Your task to perform on an android device: allow cookies in the chrome app Image 0: 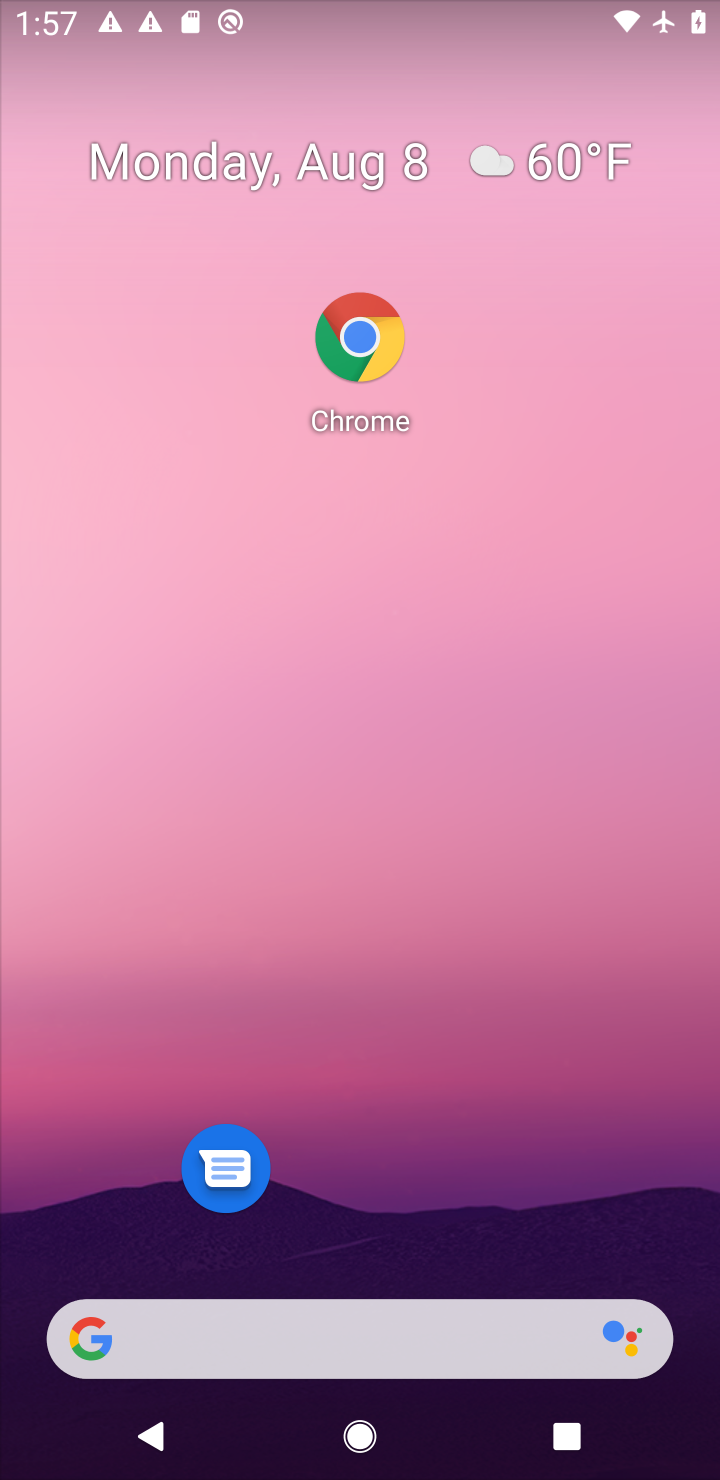
Step 0: click (366, 412)
Your task to perform on an android device: allow cookies in the chrome app Image 1: 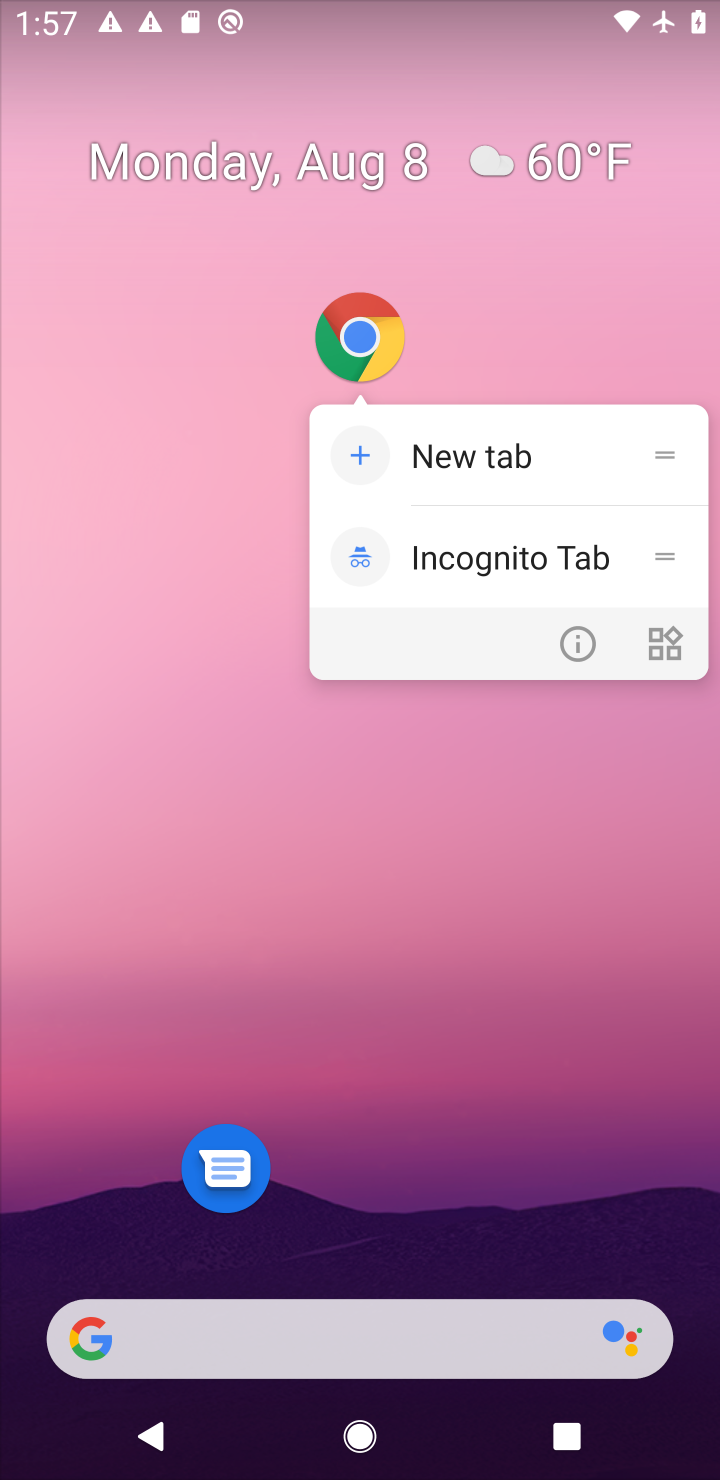
Step 1: click (362, 364)
Your task to perform on an android device: allow cookies in the chrome app Image 2: 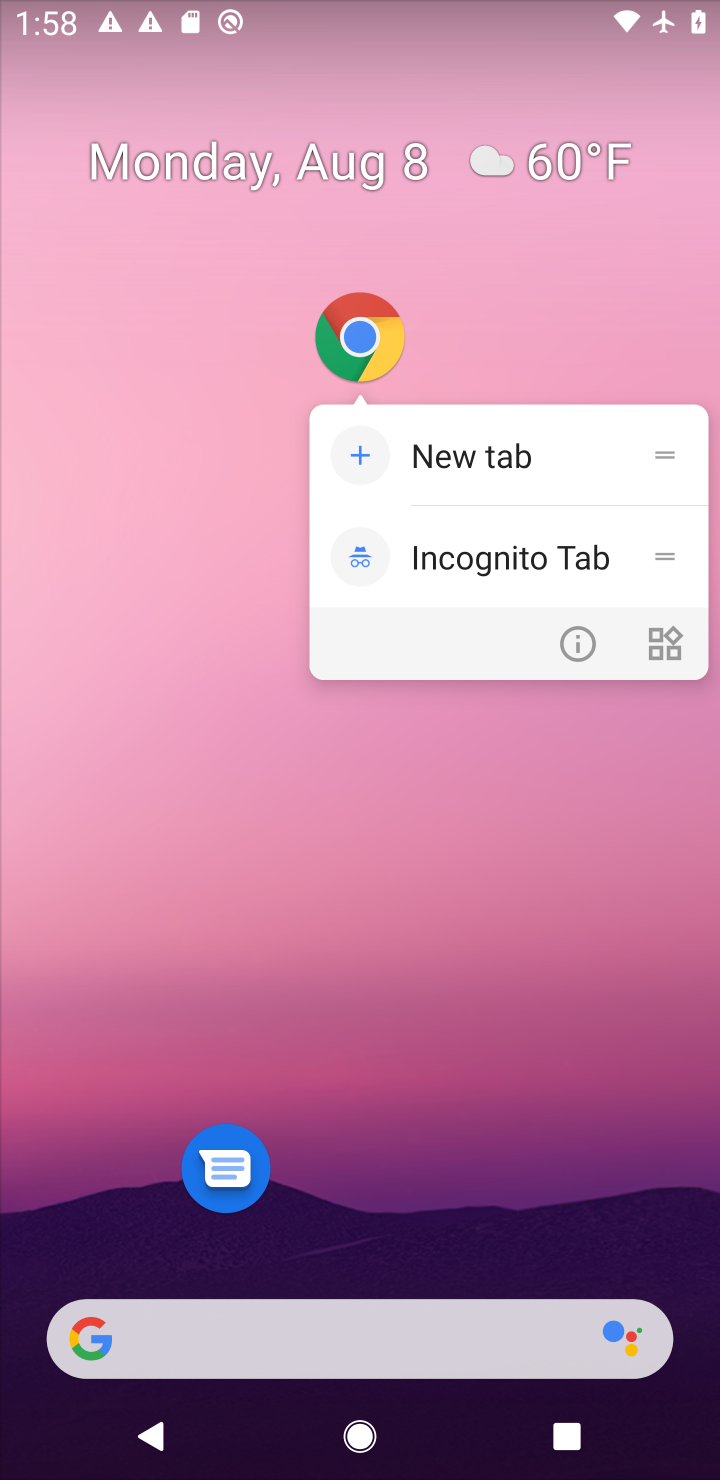
Step 2: click (362, 364)
Your task to perform on an android device: allow cookies in the chrome app Image 3: 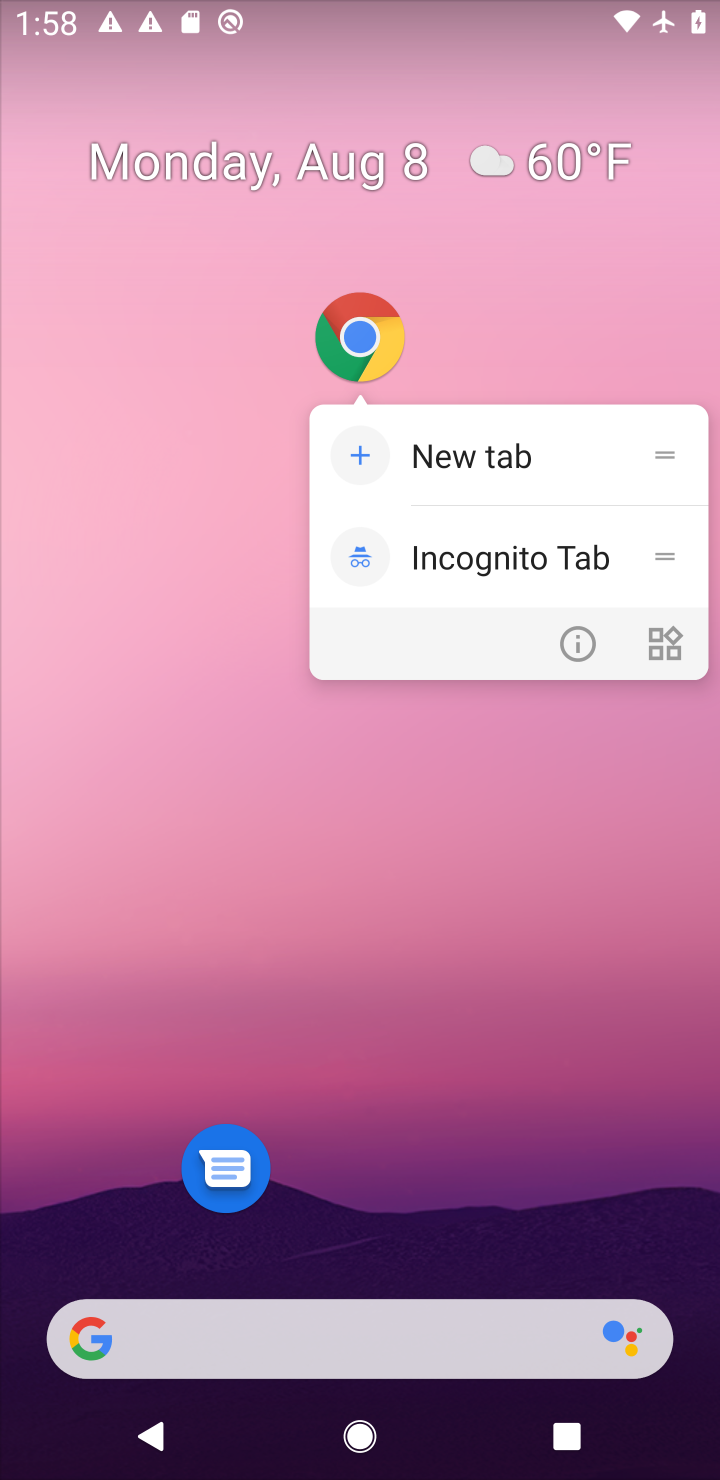
Step 3: click (371, 337)
Your task to perform on an android device: allow cookies in the chrome app Image 4: 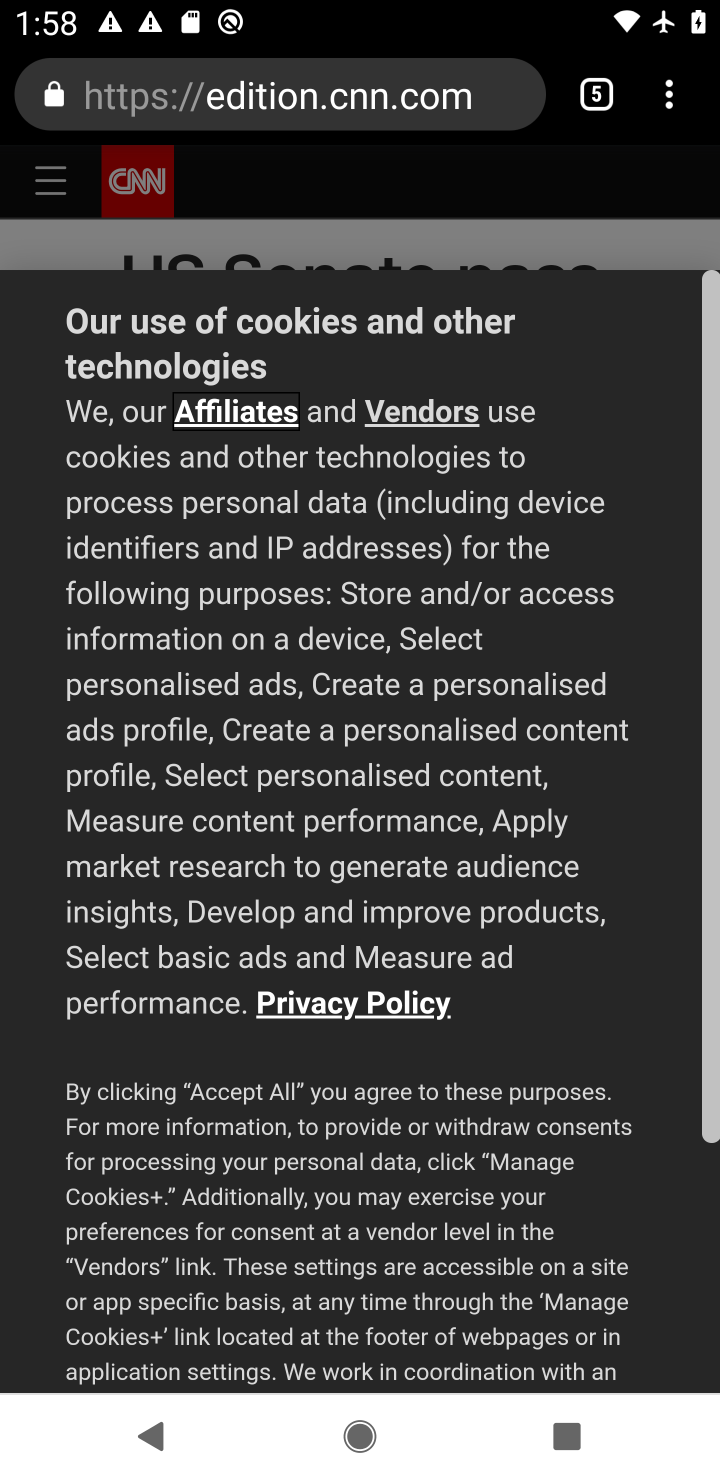
Step 4: click (674, 104)
Your task to perform on an android device: allow cookies in the chrome app Image 5: 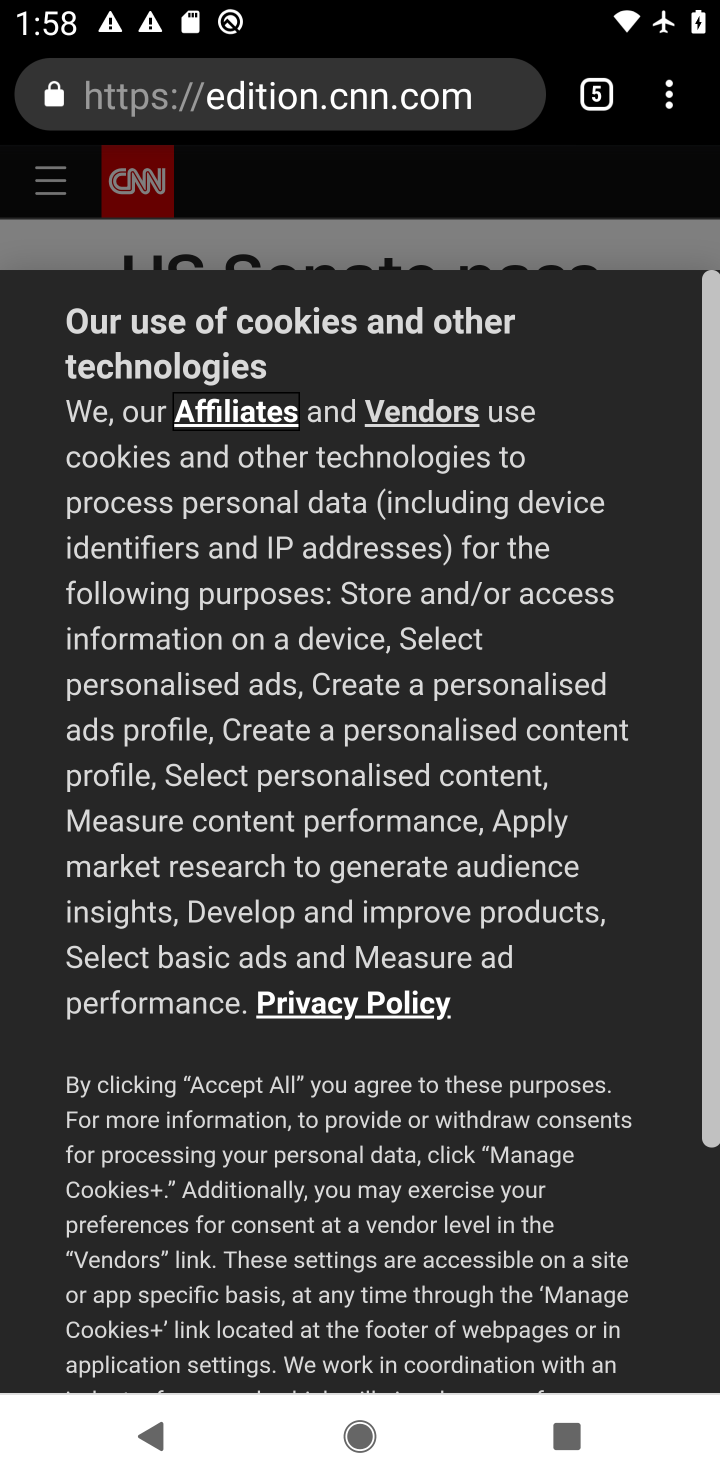
Step 5: click (687, 82)
Your task to perform on an android device: allow cookies in the chrome app Image 6: 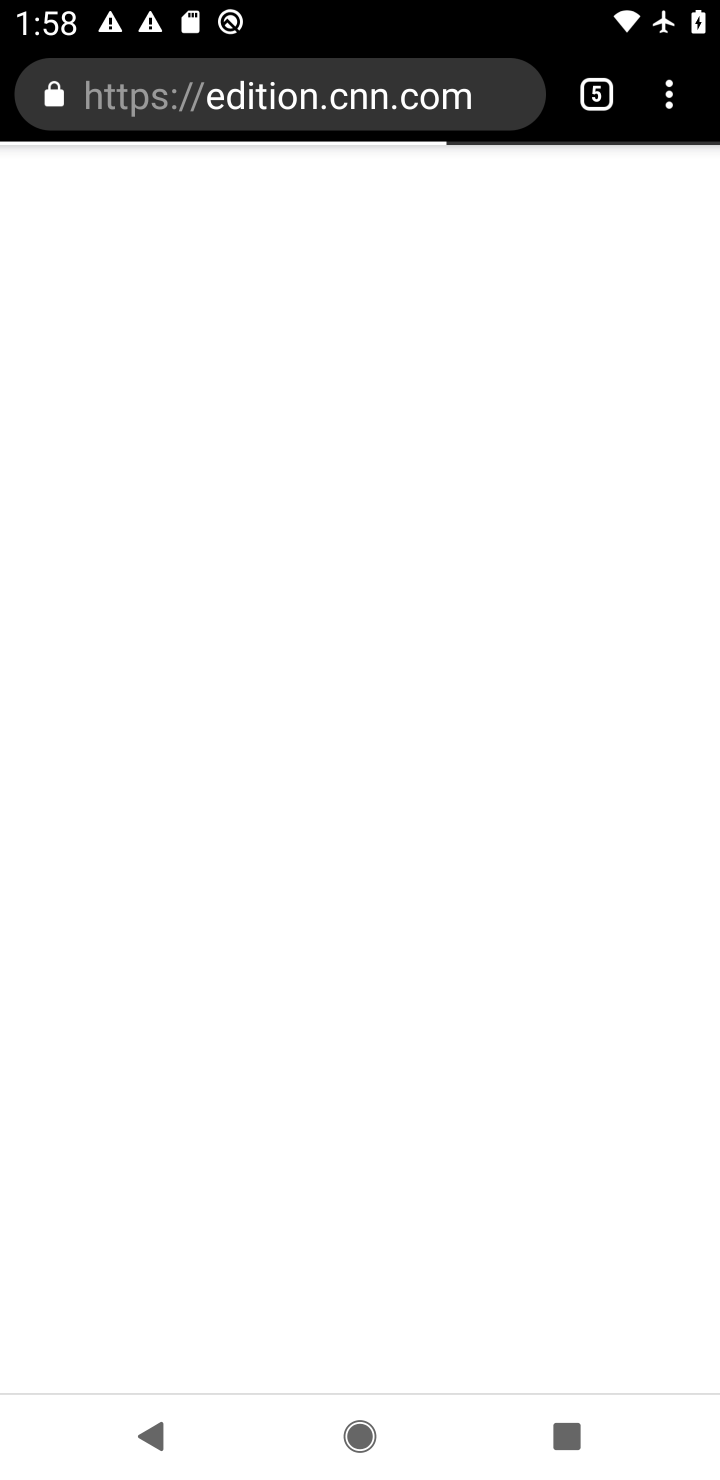
Step 6: task complete